Your task to perform on an android device: turn off airplane mode Image 0: 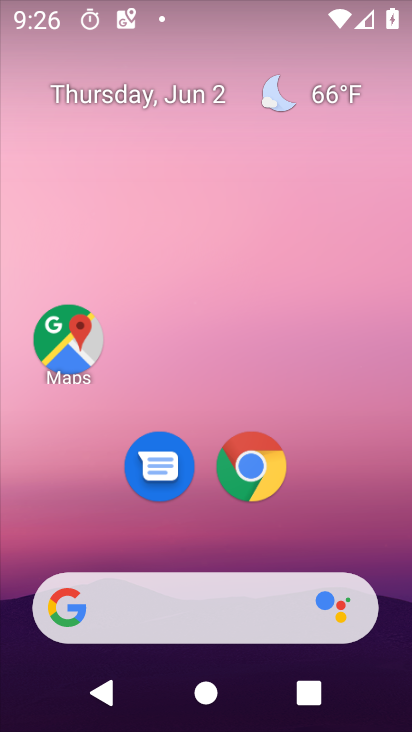
Step 0: press home button
Your task to perform on an android device: turn off airplane mode Image 1: 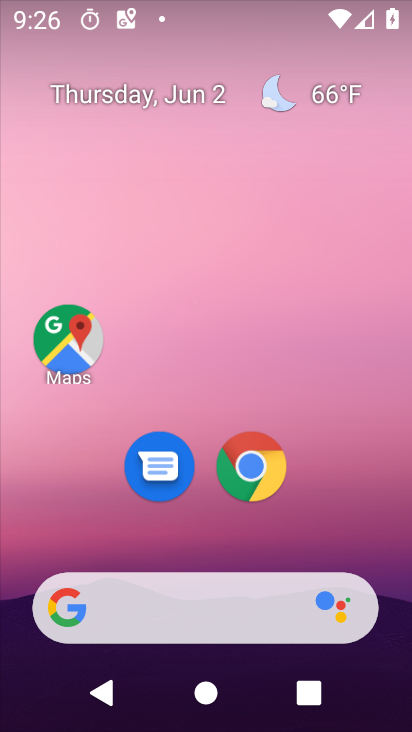
Step 1: drag from (57, 631) to (356, 171)
Your task to perform on an android device: turn off airplane mode Image 2: 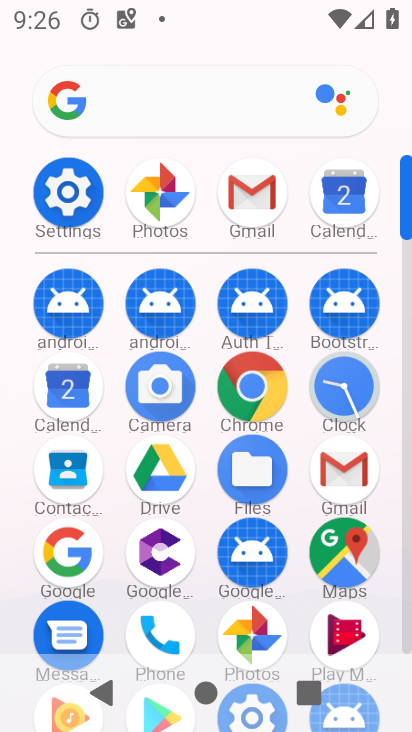
Step 2: click (97, 189)
Your task to perform on an android device: turn off airplane mode Image 3: 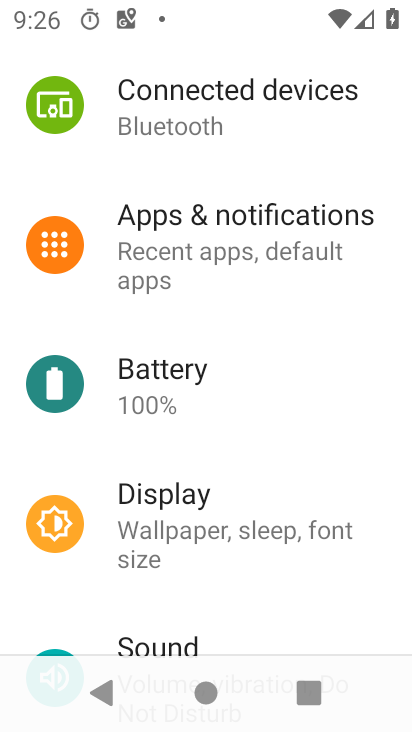
Step 3: drag from (219, 84) to (132, 607)
Your task to perform on an android device: turn off airplane mode Image 4: 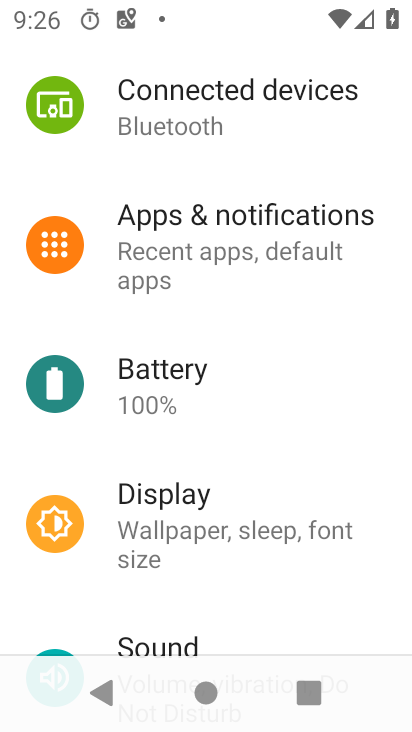
Step 4: drag from (129, 88) to (76, 573)
Your task to perform on an android device: turn off airplane mode Image 5: 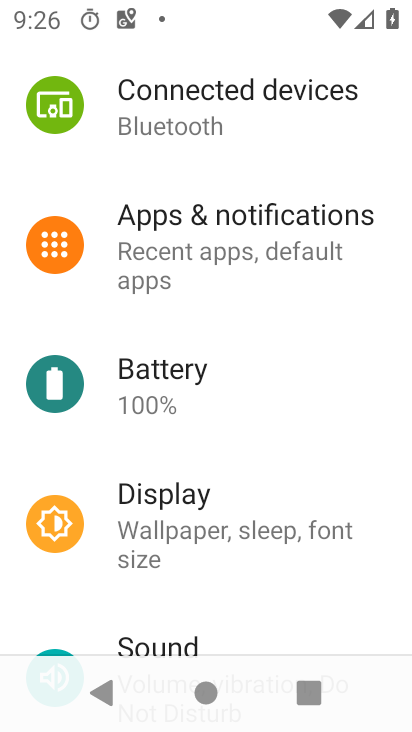
Step 5: drag from (36, 148) to (30, 631)
Your task to perform on an android device: turn off airplane mode Image 6: 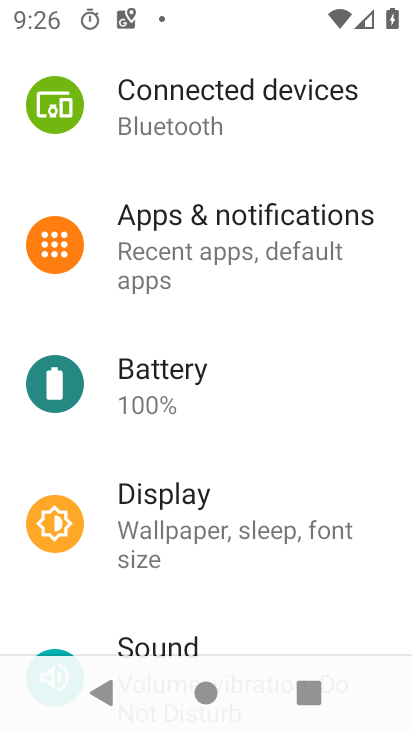
Step 6: drag from (153, 160) to (98, 725)
Your task to perform on an android device: turn off airplane mode Image 7: 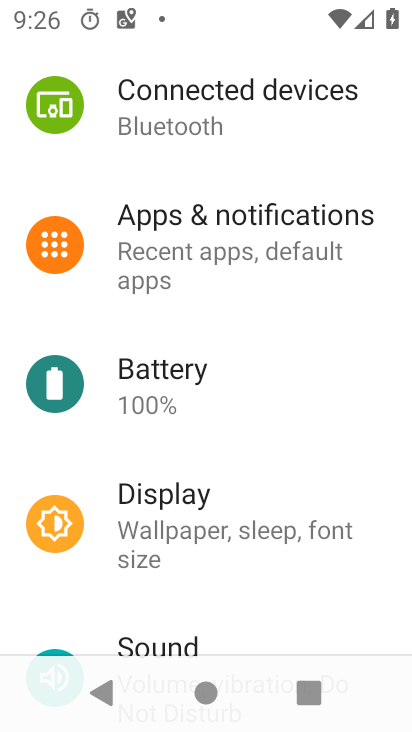
Step 7: drag from (276, 142) to (167, 681)
Your task to perform on an android device: turn off airplane mode Image 8: 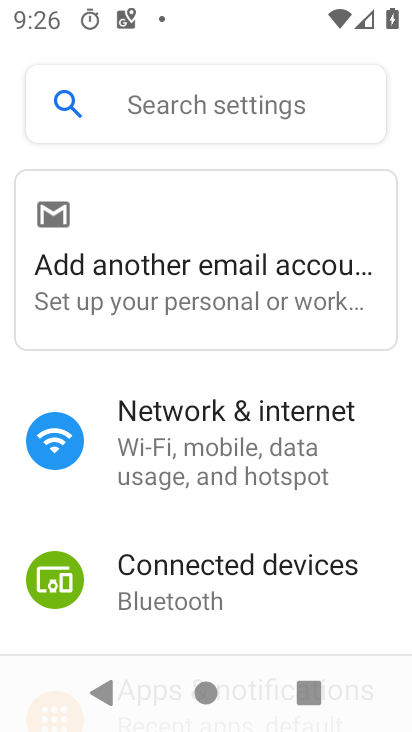
Step 8: click (222, 429)
Your task to perform on an android device: turn off airplane mode Image 9: 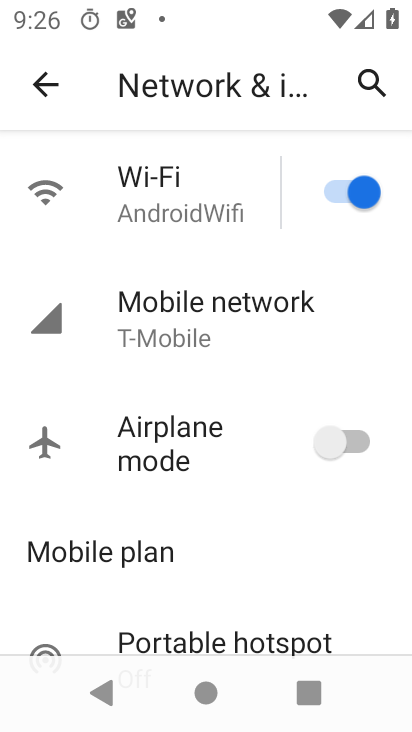
Step 9: task complete